Your task to perform on an android device: View the shopping cart on bestbuy. Add apple airpods to the cart on bestbuy Image 0: 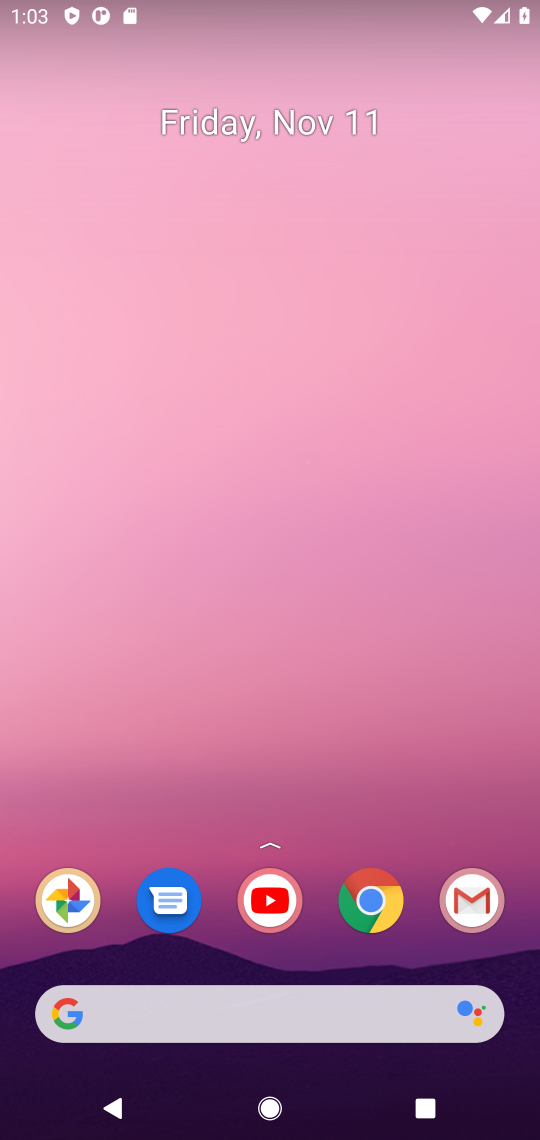
Step 0: click (376, 897)
Your task to perform on an android device: View the shopping cart on bestbuy. Add apple airpods to the cart on bestbuy Image 1: 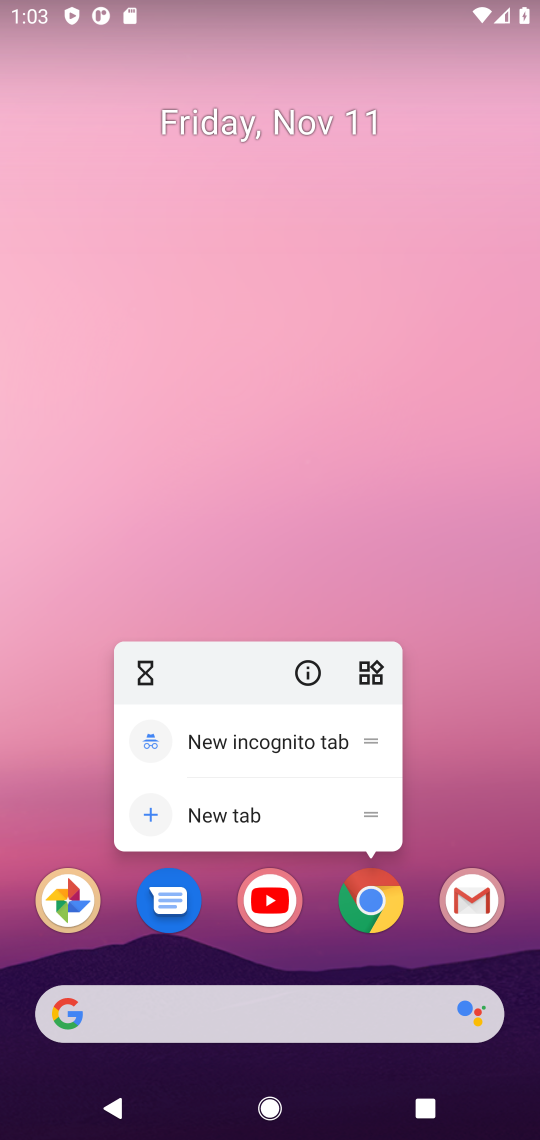
Step 1: click (382, 893)
Your task to perform on an android device: View the shopping cart on bestbuy. Add apple airpods to the cart on bestbuy Image 2: 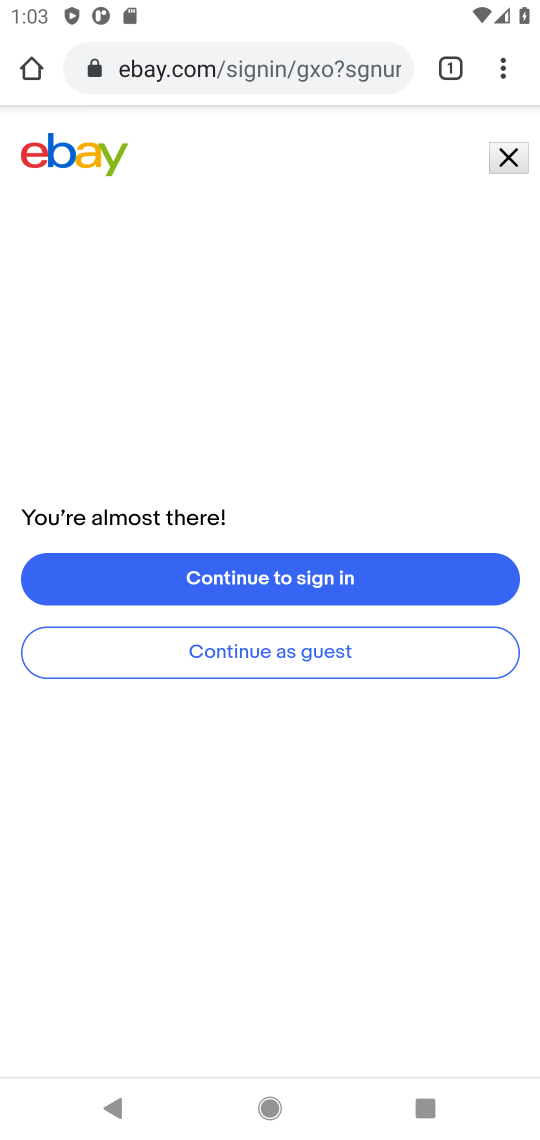
Step 2: click (269, 58)
Your task to perform on an android device: View the shopping cart on bestbuy. Add apple airpods to the cart on bestbuy Image 3: 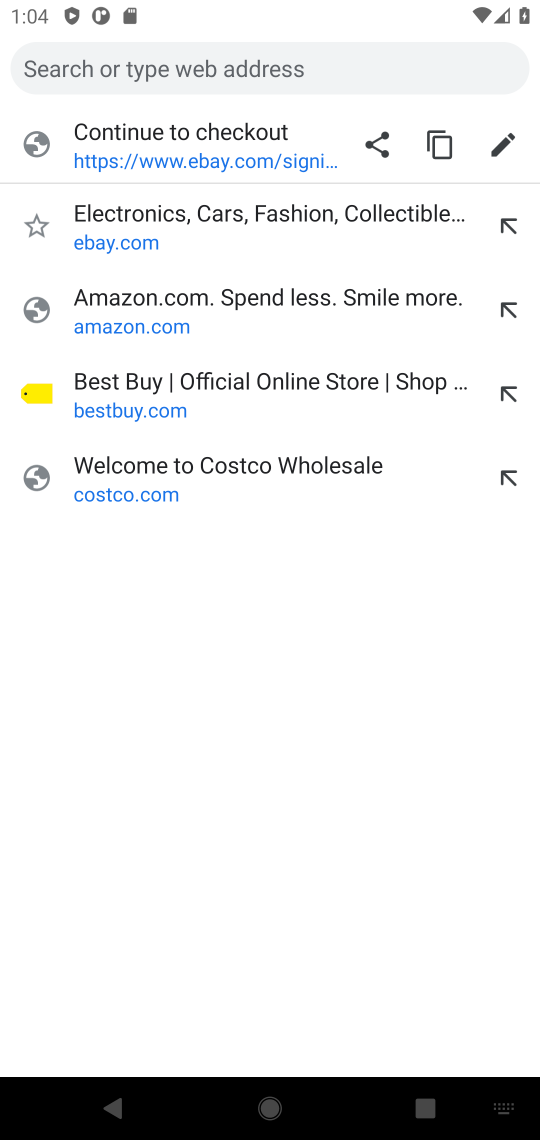
Step 3: type "bestbuy"
Your task to perform on an android device: View the shopping cart on bestbuy. Add apple airpods to the cart on bestbuy Image 4: 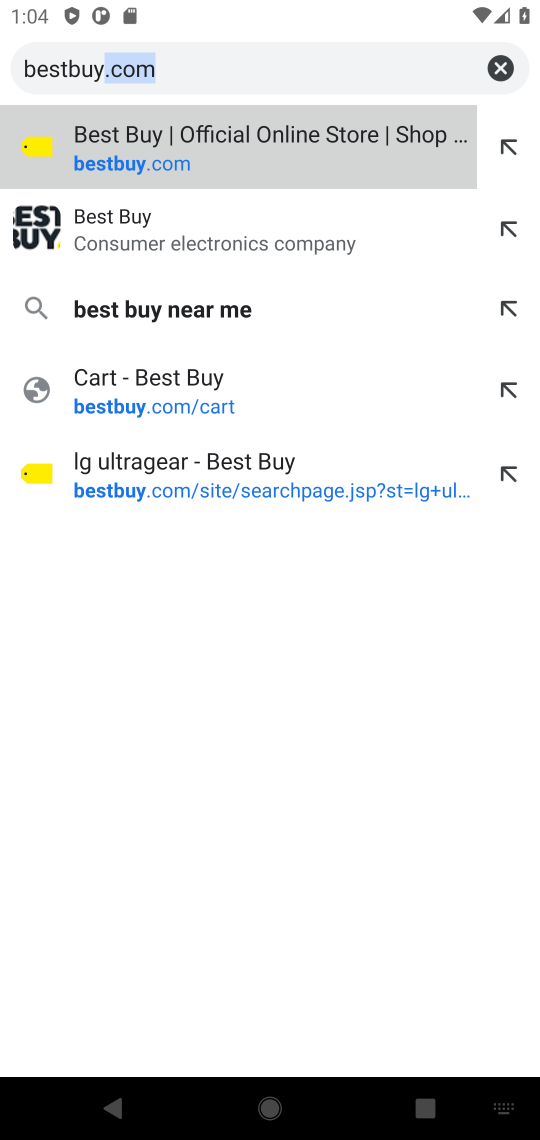
Step 4: press enter
Your task to perform on an android device: View the shopping cart on bestbuy. Add apple airpods to the cart on bestbuy Image 5: 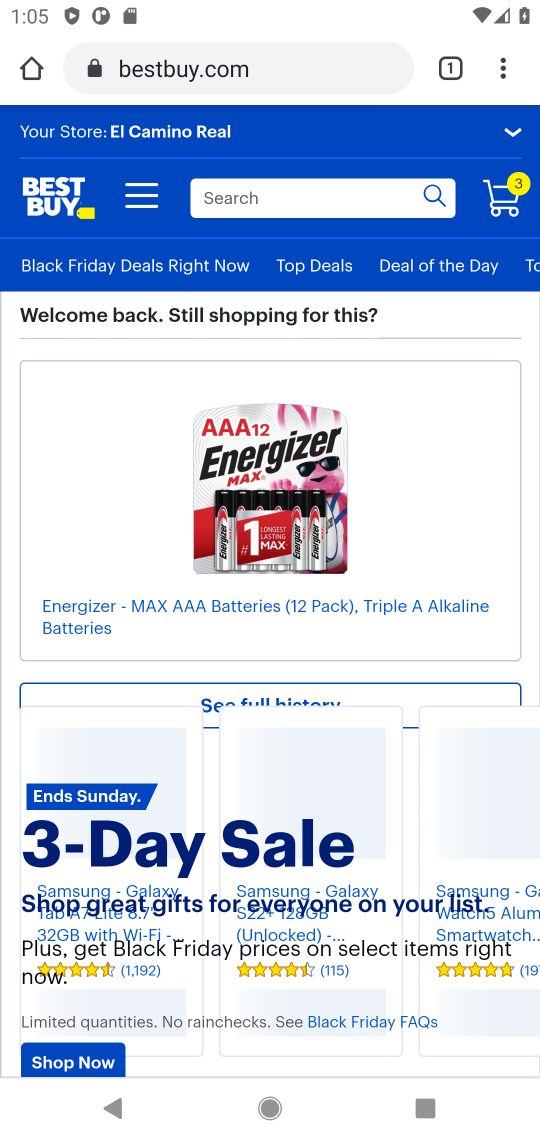
Step 5: click (275, 195)
Your task to perform on an android device: View the shopping cart on bestbuy. Add apple airpods to the cart on bestbuy Image 6: 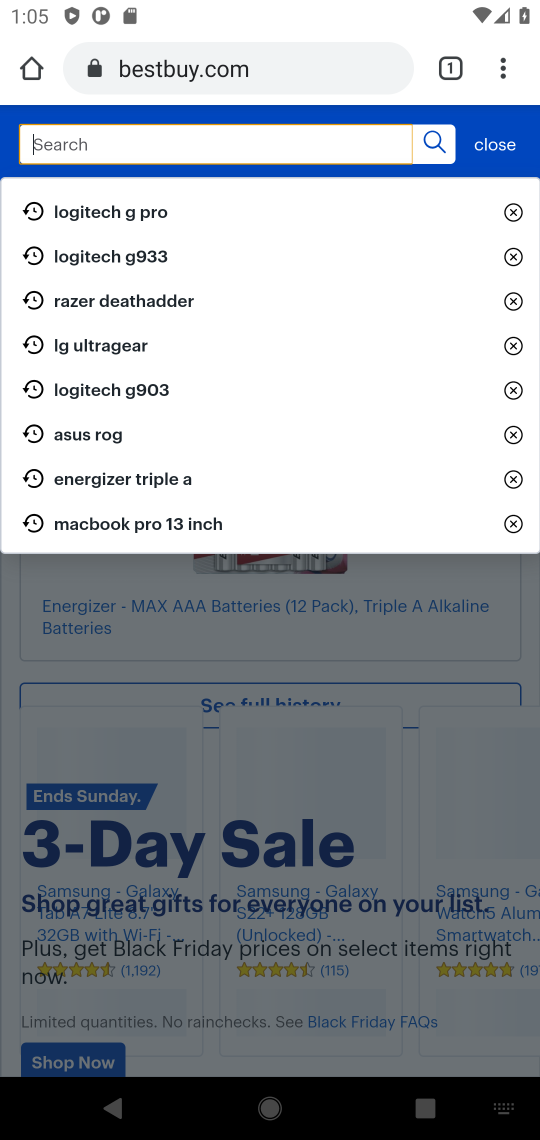
Step 6: type "apple airpods"
Your task to perform on an android device: View the shopping cart on bestbuy. Add apple airpods to the cart on bestbuy Image 7: 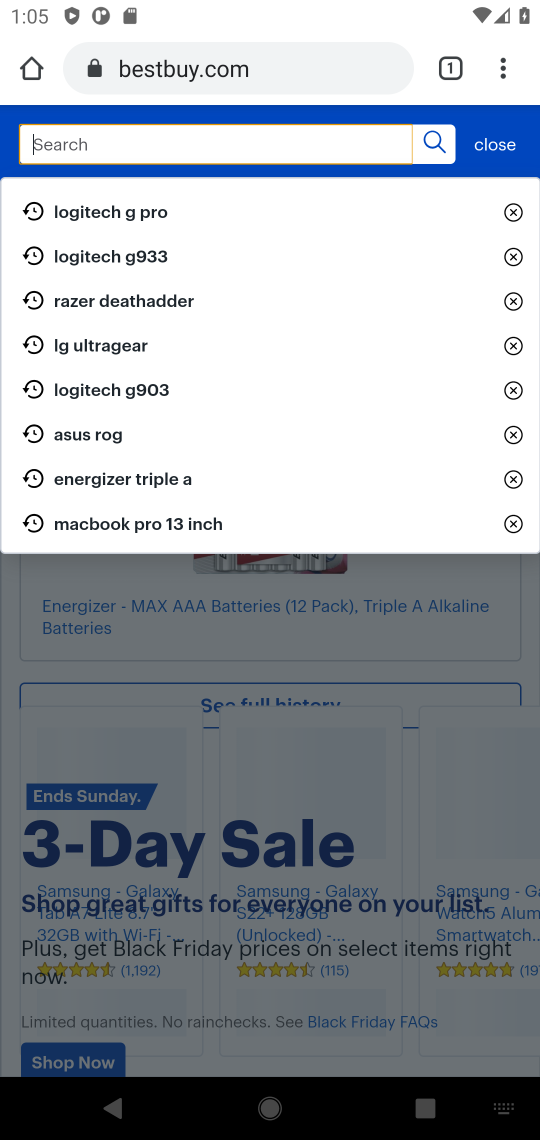
Step 7: press enter
Your task to perform on an android device: View the shopping cart on bestbuy. Add apple airpods to the cart on bestbuy Image 8: 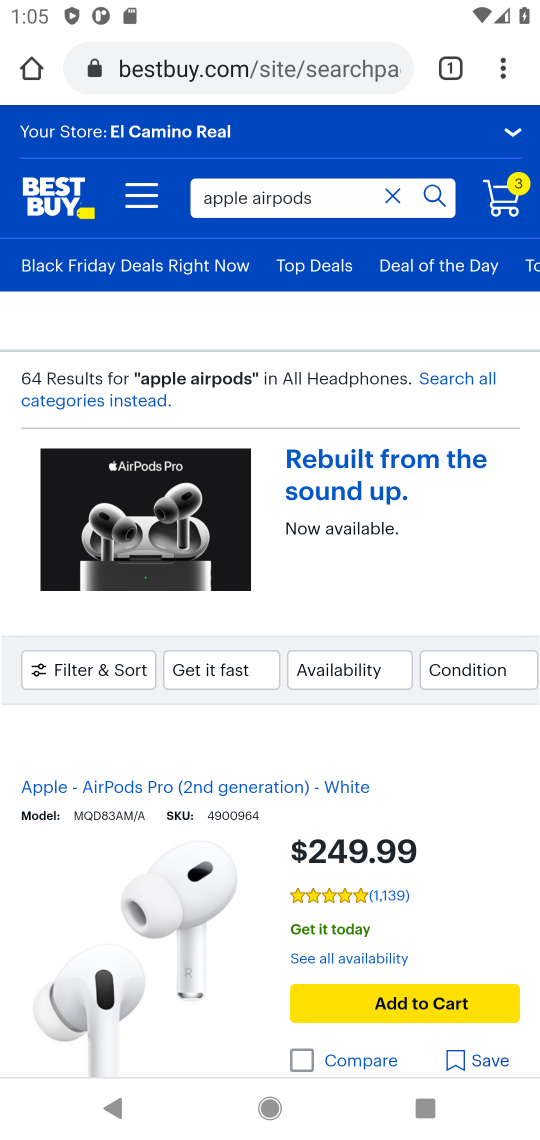
Step 8: drag from (75, 951) to (274, 607)
Your task to perform on an android device: View the shopping cart on bestbuy. Add apple airpods to the cart on bestbuy Image 9: 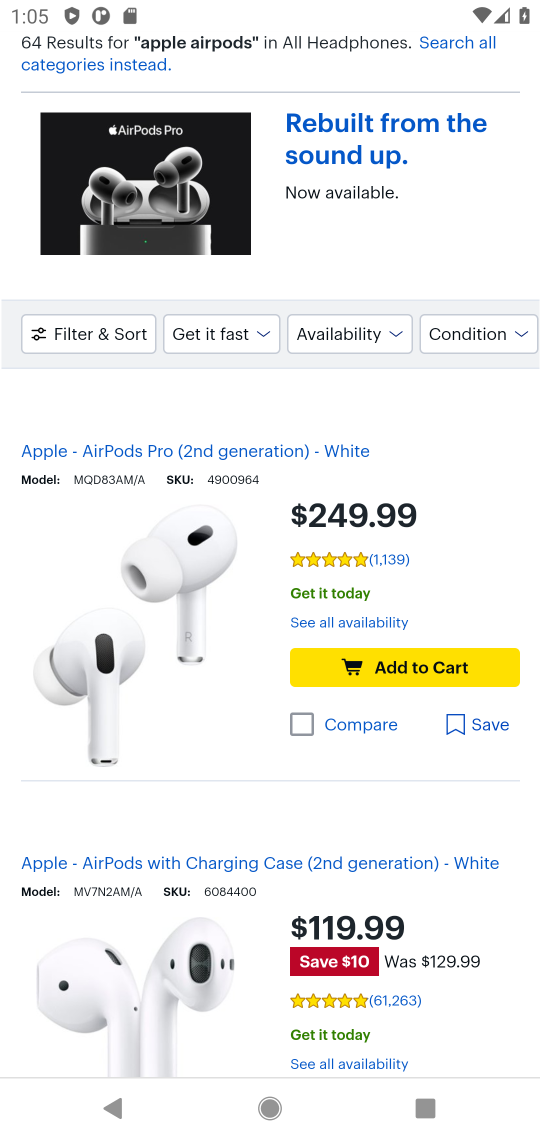
Step 9: click (428, 663)
Your task to perform on an android device: View the shopping cart on bestbuy. Add apple airpods to the cart on bestbuy Image 10: 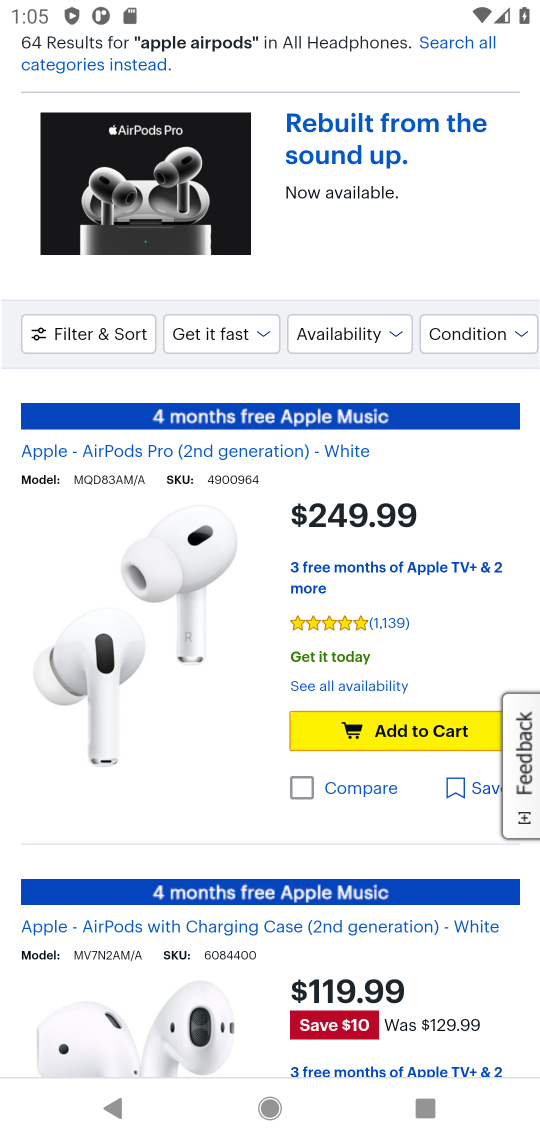
Step 10: click (405, 730)
Your task to perform on an android device: View the shopping cart on bestbuy. Add apple airpods to the cart on bestbuy Image 11: 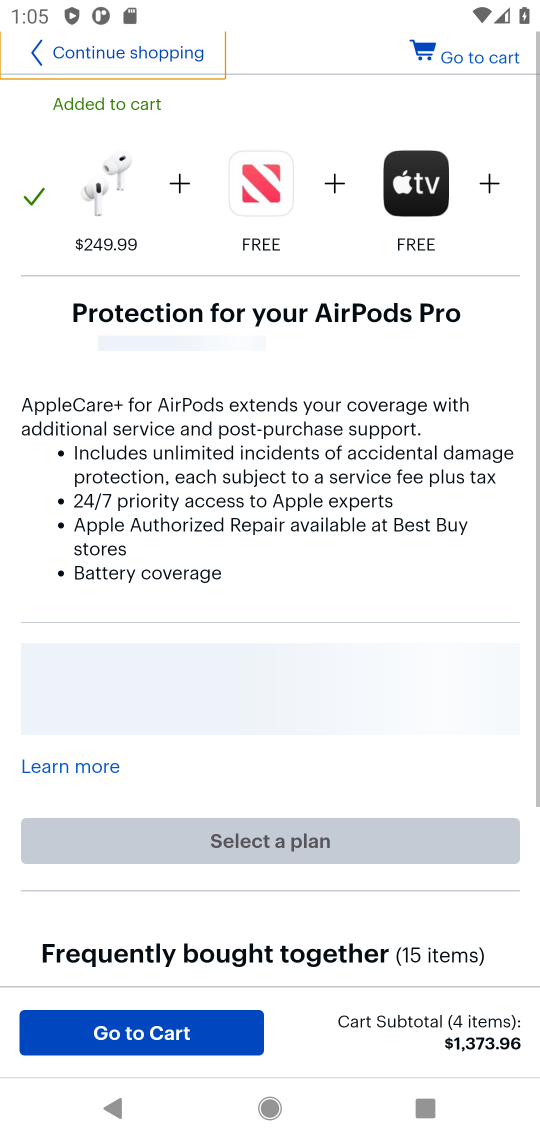
Step 11: click (491, 50)
Your task to perform on an android device: View the shopping cart on bestbuy. Add apple airpods to the cart on bestbuy Image 12: 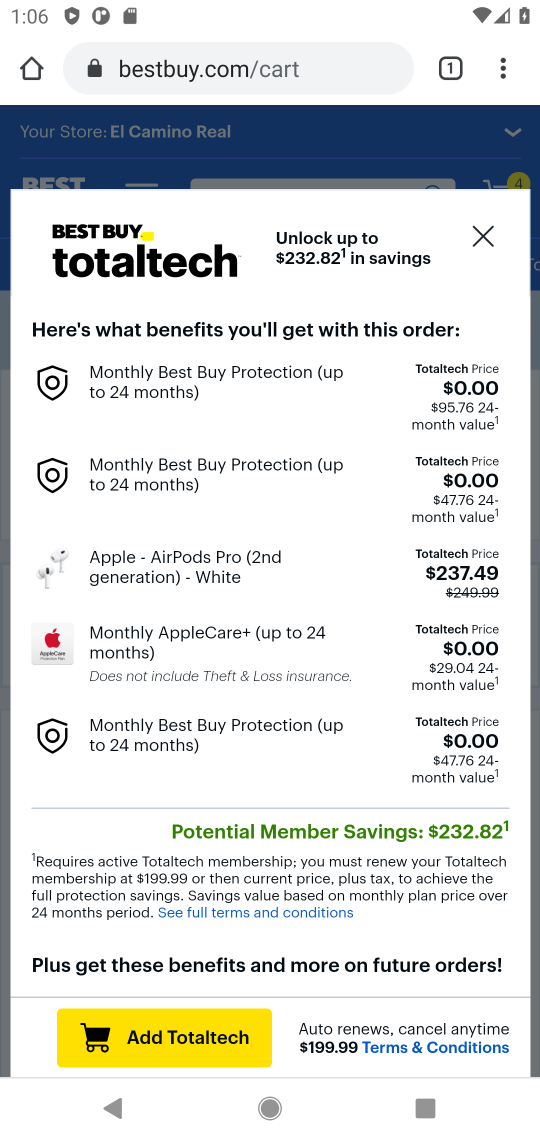
Step 12: click (475, 223)
Your task to perform on an android device: View the shopping cart on bestbuy. Add apple airpods to the cart on bestbuy Image 13: 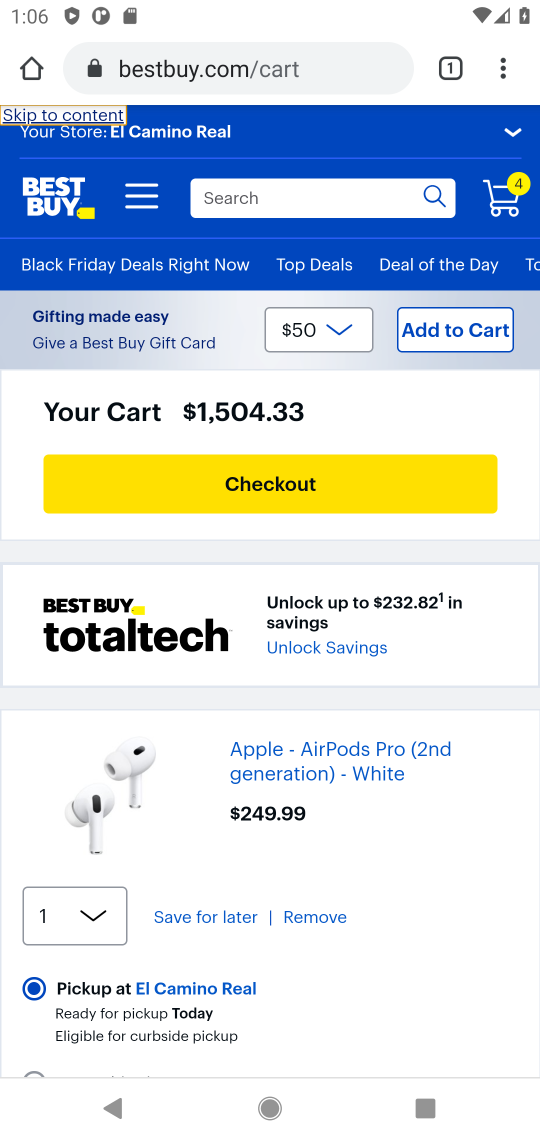
Step 13: drag from (281, 751) to (390, 128)
Your task to perform on an android device: View the shopping cart on bestbuy. Add apple airpods to the cart on bestbuy Image 14: 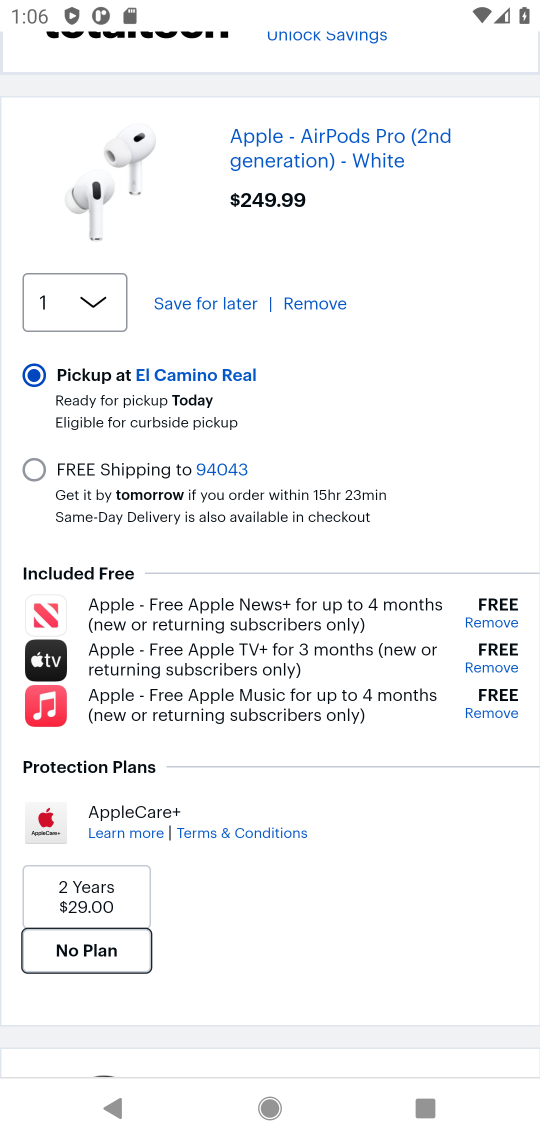
Step 14: drag from (277, 839) to (327, 517)
Your task to perform on an android device: View the shopping cart on bestbuy. Add apple airpods to the cart on bestbuy Image 15: 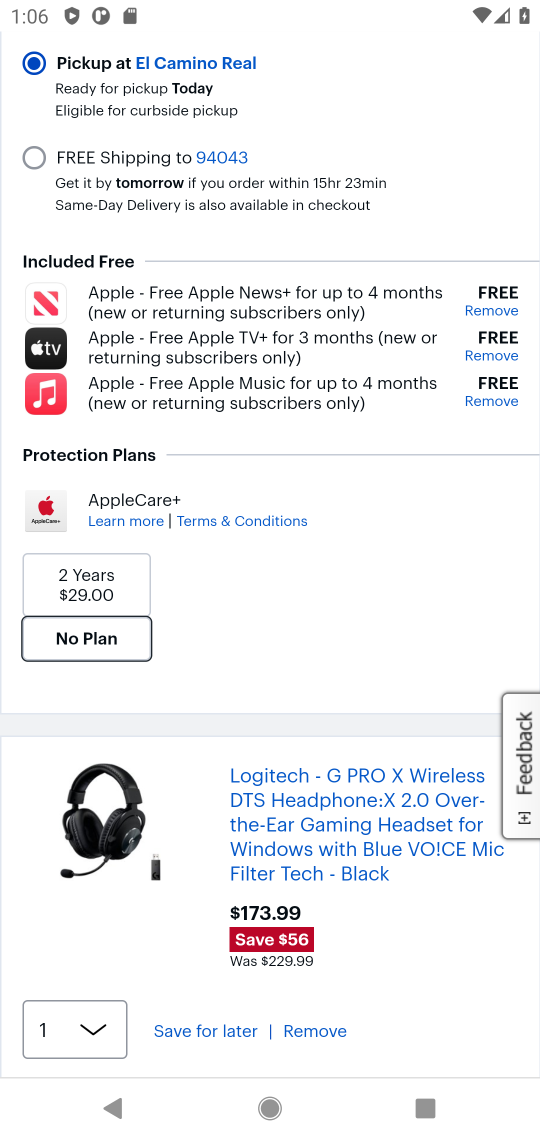
Step 15: drag from (232, 770) to (320, 444)
Your task to perform on an android device: View the shopping cart on bestbuy. Add apple airpods to the cart on bestbuy Image 16: 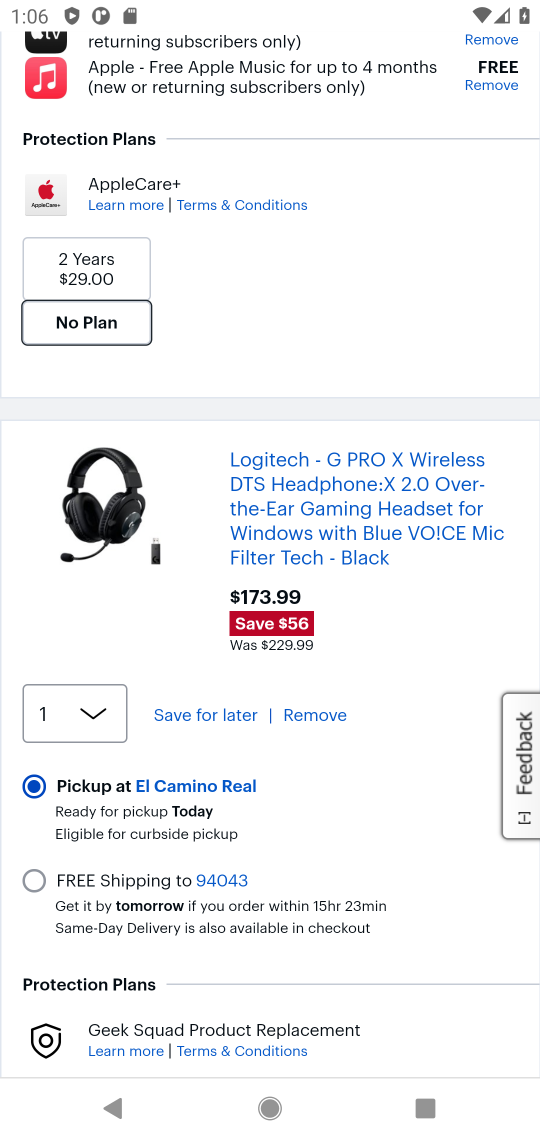
Step 16: click (323, 706)
Your task to perform on an android device: View the shopping cart on bestbuy. Add apple airpods to the cart on bestbuy Image 17: 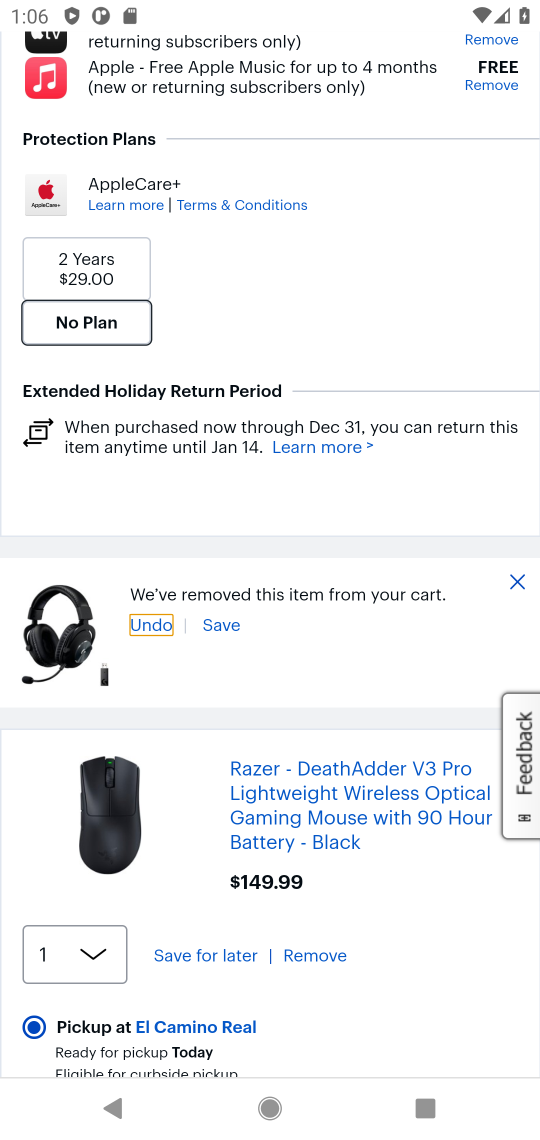
Step 17: click (328, 952)
Your task to perform on an android device: View the shopping cart on bestbuy. Add apple airpods to the cart on bestbuy Image 18: 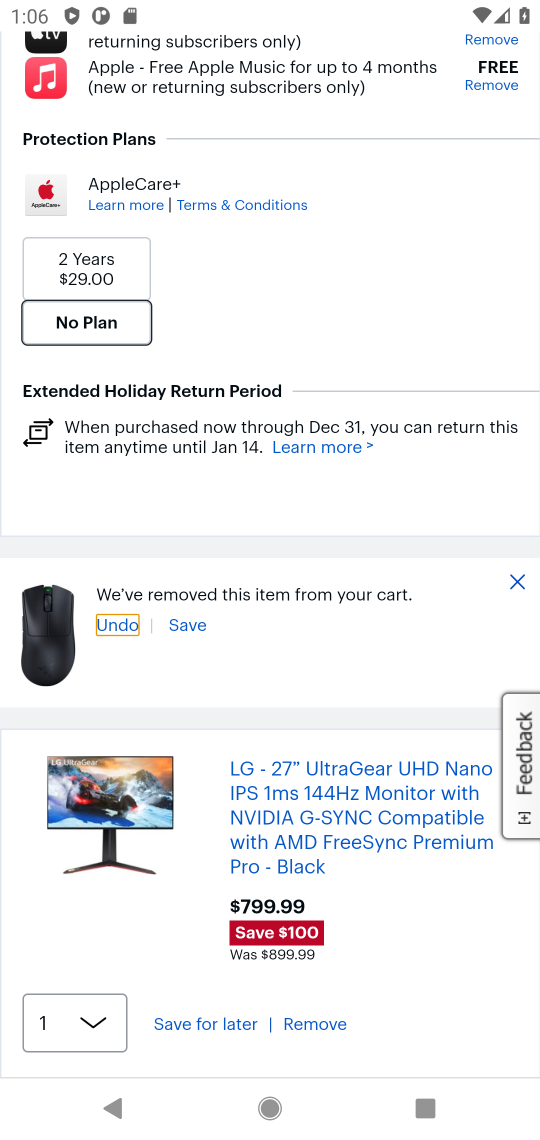
Step 18: click (325, 1029)
Your task to perform on an android device: View the shopping cart on bestbuy. Add apple airpods to the cart on bestbuy Image 19: 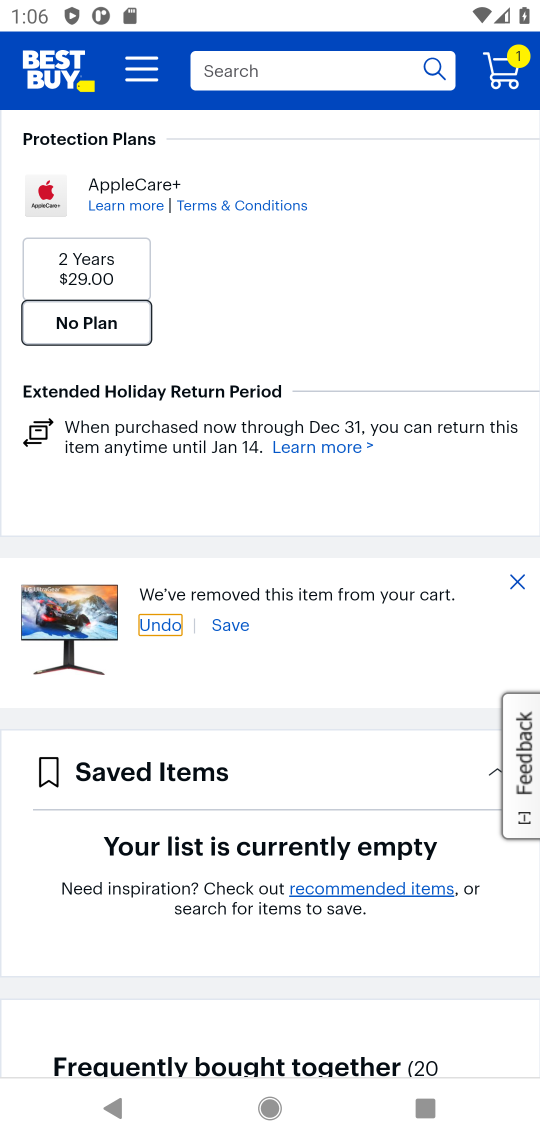
Step 19: task complete